Your task to perform on an android device: Open Maps and search for coffee Image 0: 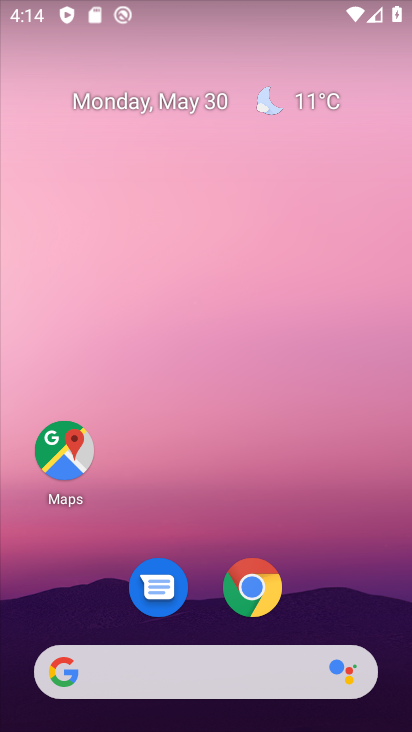
Step 0: drag from (331, 553) to (257, 3)
Your task to perform on an android device: Open Maps and search for coffee Image 1: 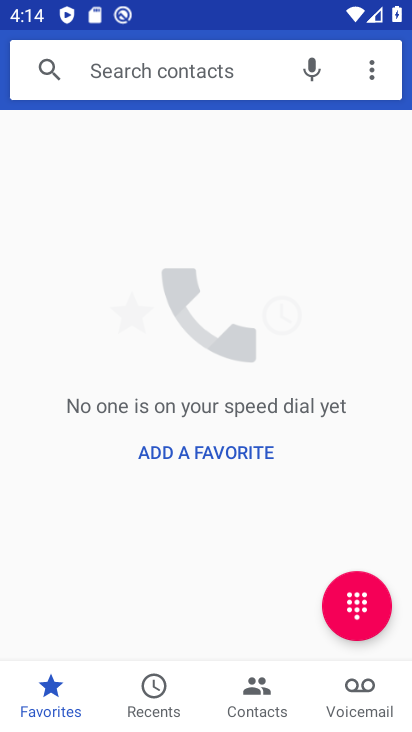
Step 1: press home button
Your task to perform on an android device: Open Maps and search for coffee Image 2: 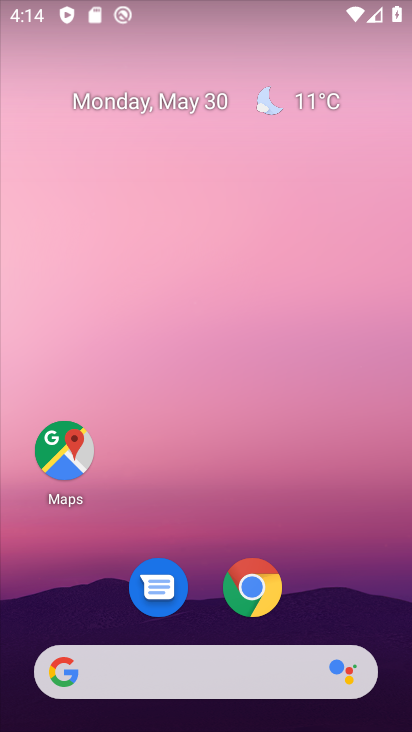
Step 2: click (65, 452)
Your task to perform on an android device: Open Maps and search for coffee Image 3: 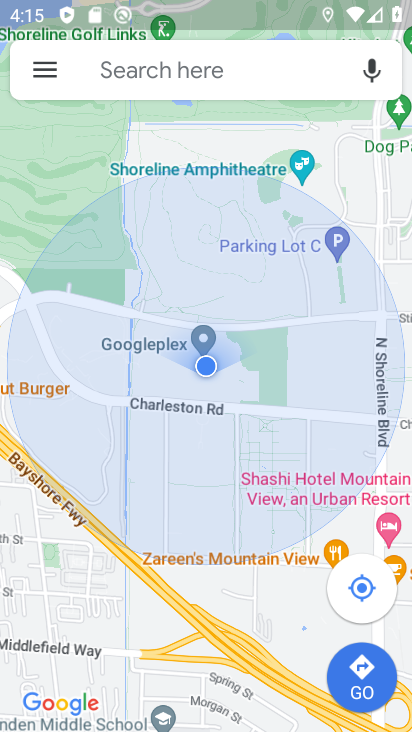
Step 3: click (251, 90)
Your task to perform on an android device: Open Maps and search for coffee Image 4: 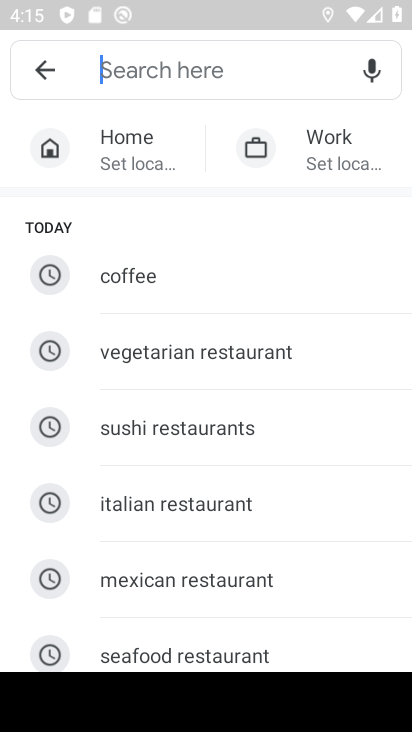
Step 4: click (261, 263)
Your task to perform on an android device: Open Maps and search for coffee Image 5: 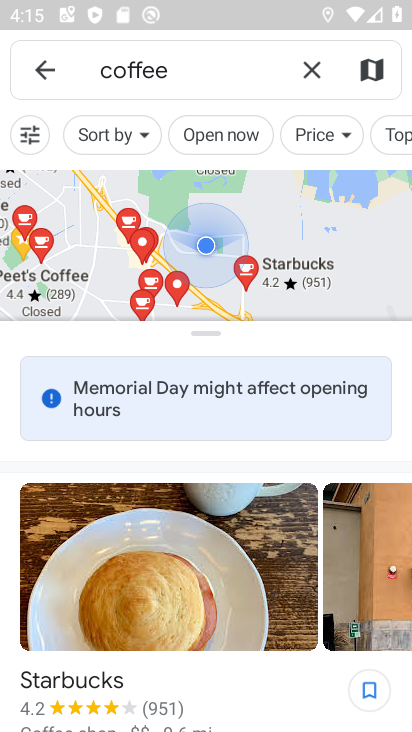
Step 5: task complete